Your task to perform on an android device: turn on notifications settings in the gmail app Image 0: 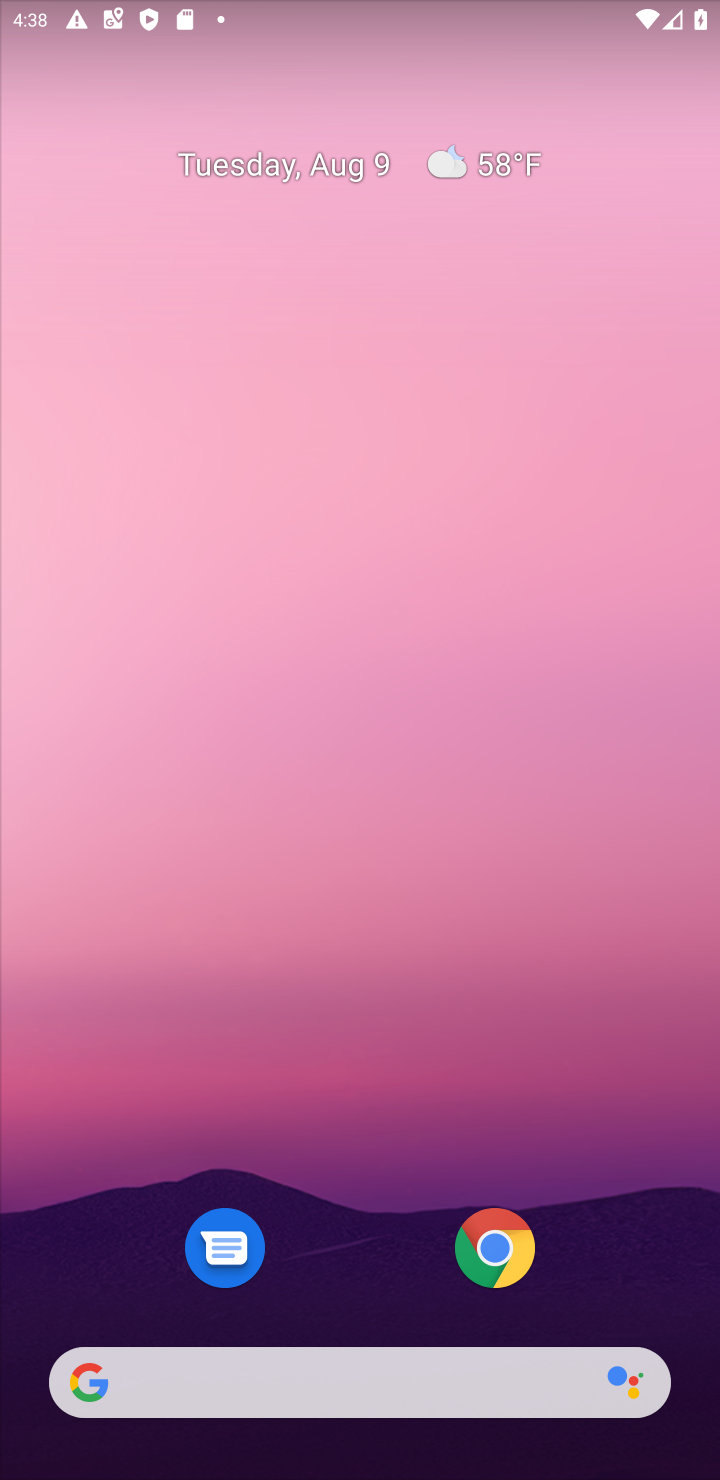
Step 0: drag from (358, 832) to (371, 83)
Your task to perform on an android device: turn on notifications settings in the gmail app Image 1: 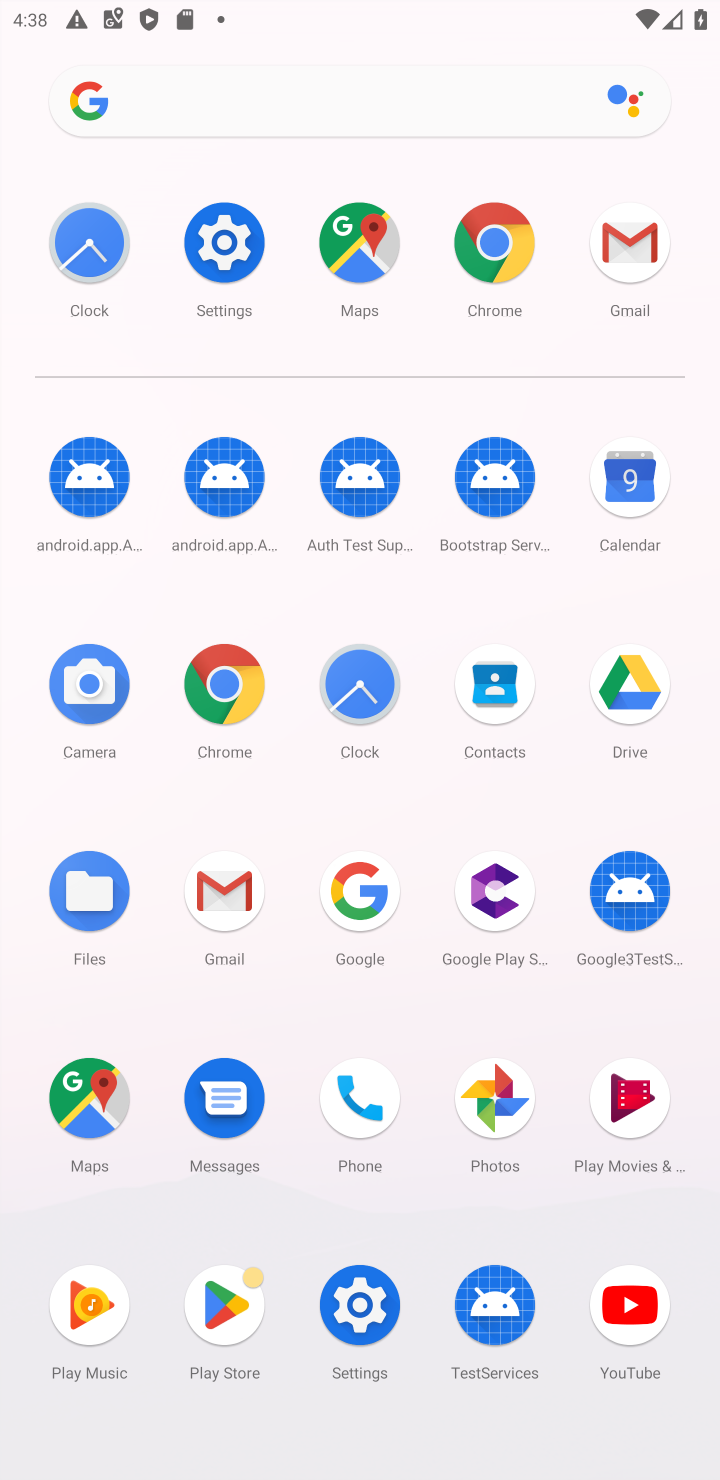
Step 1: click (215, 905)
Your task to perform on an android device: turn on notifications settings in the gmail app Image 2: 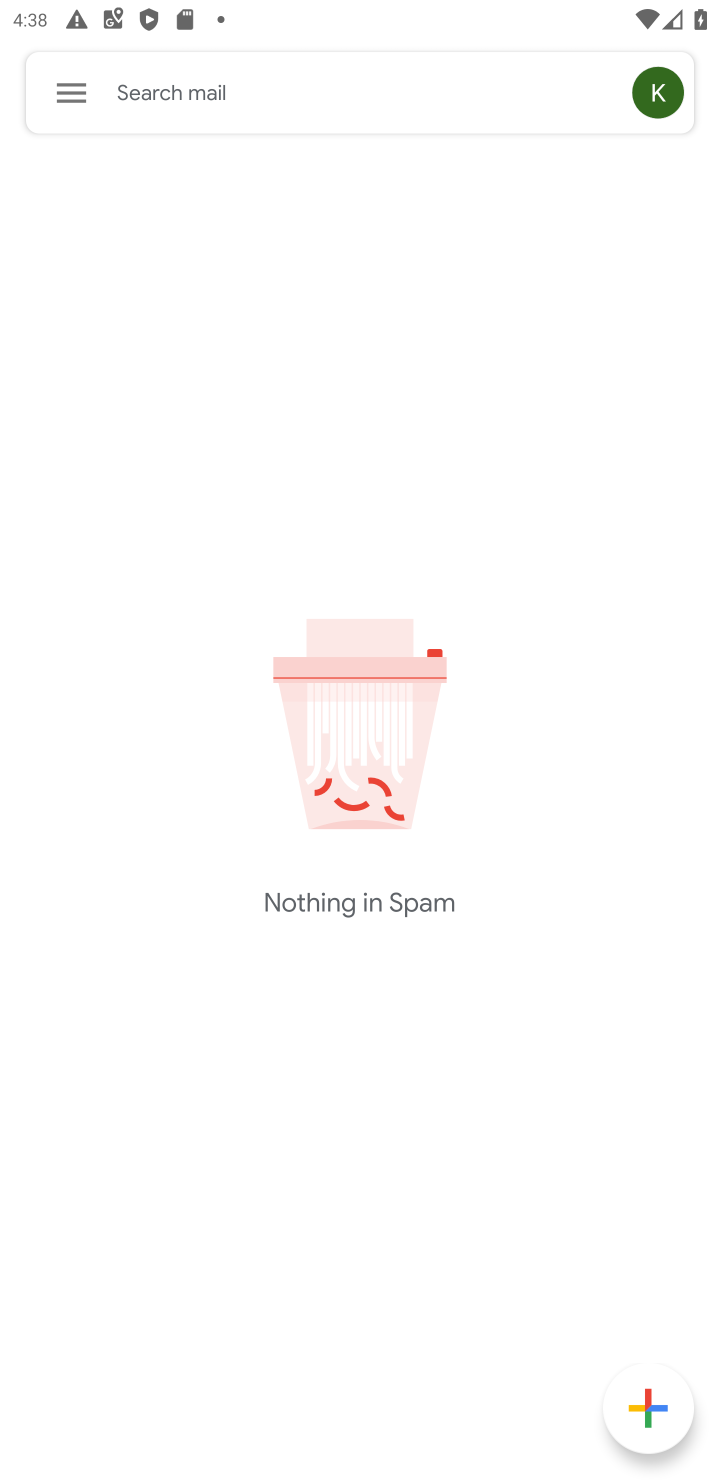
Step 2: click (52, 87)
Your task to perform on an android device: turn on notifications settings in the gmail app Image 3: 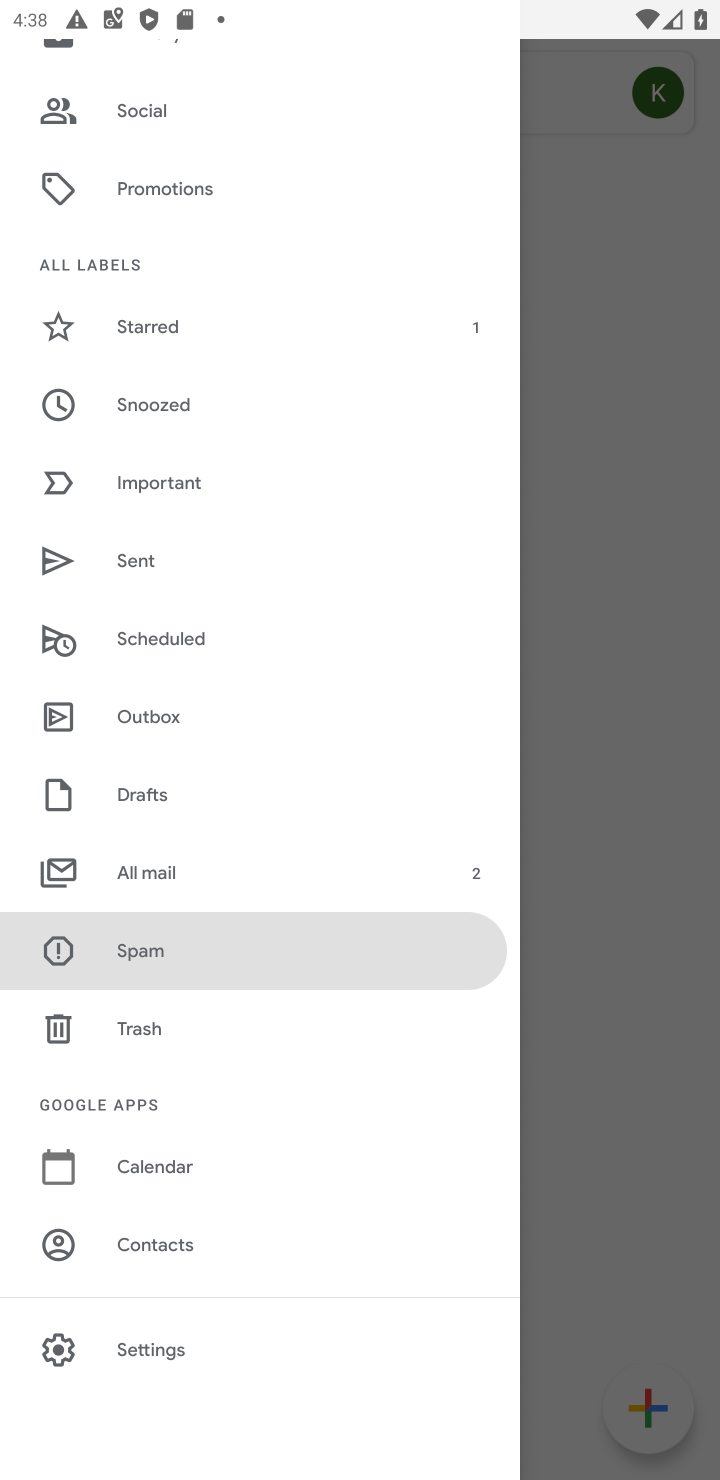
Step 3: click (176, 1346)
Your task to perform on an android device: turn on notifications settings in the gmail app Image 4: 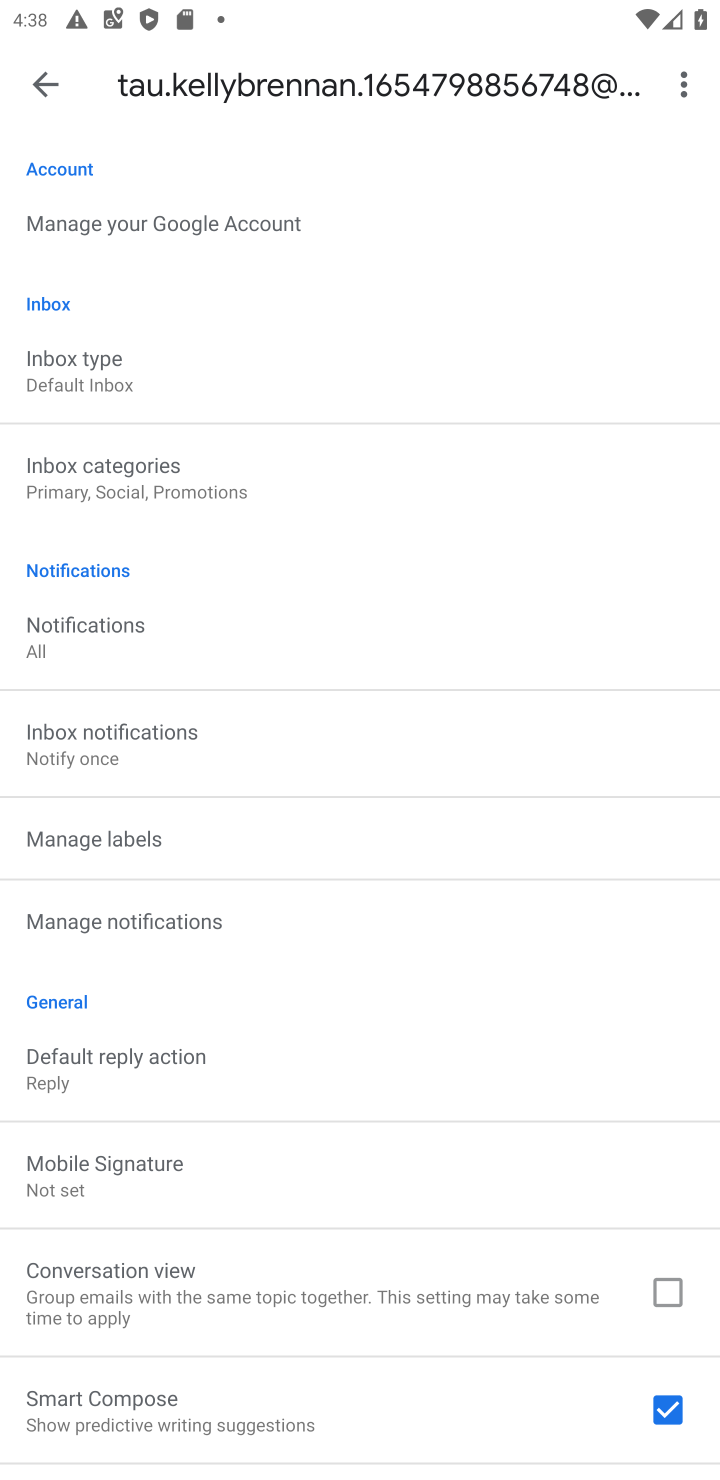
Step 4: click (135, 917)
Your task to perform on an android device: turn on notifications settings in the gmail app Image 5: 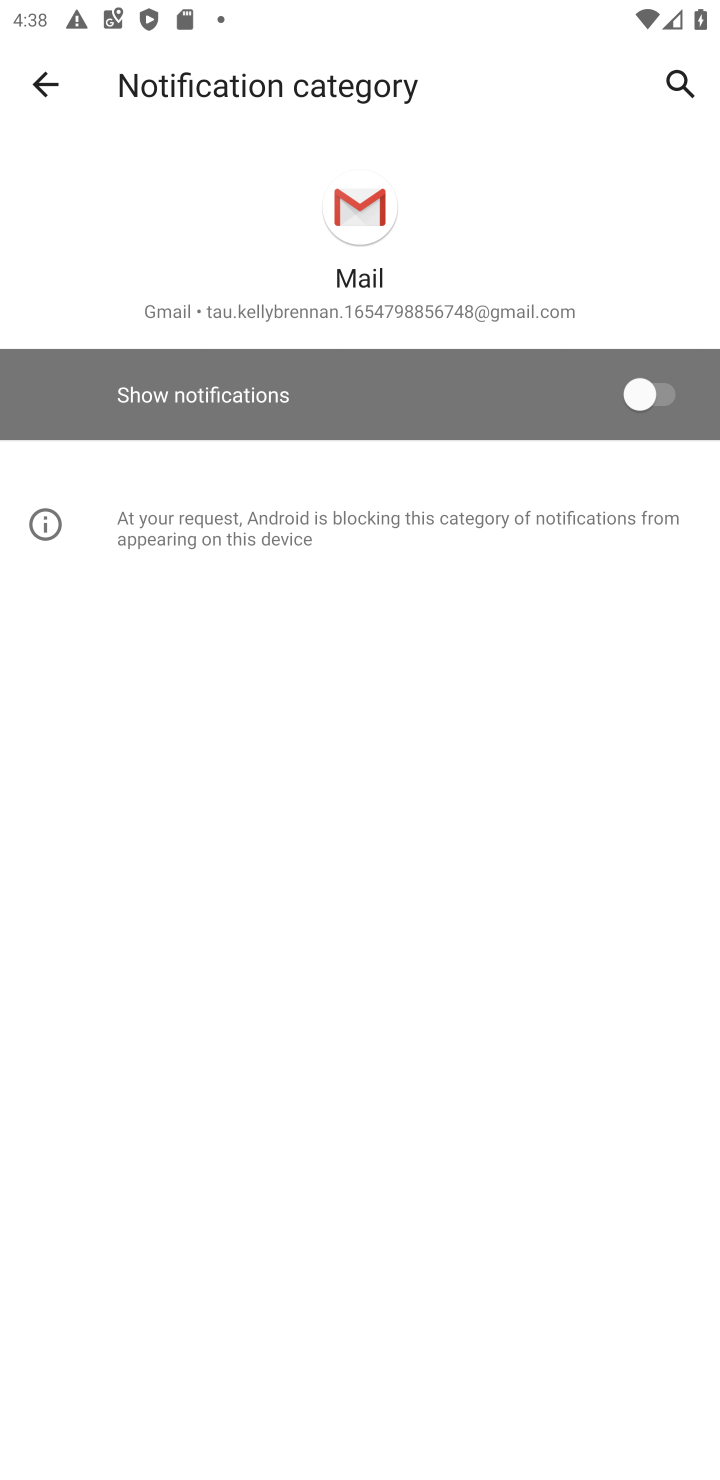
Step 5: click (545, 404)
Your task to perform on an android device: turn on notifications settings in the gmail app Image 6: 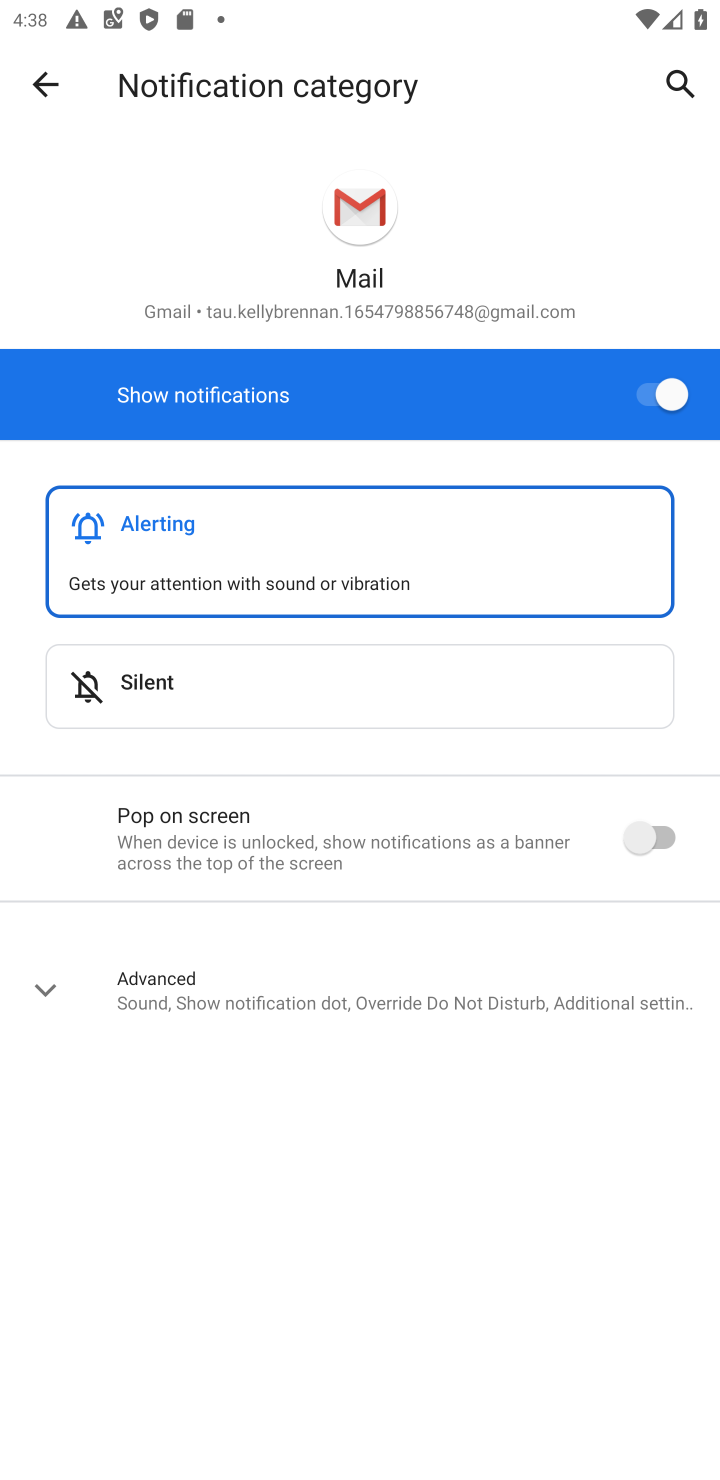
Step 6: task complete